Your task to perform on an android device: Go to accessibility settings Image 0: 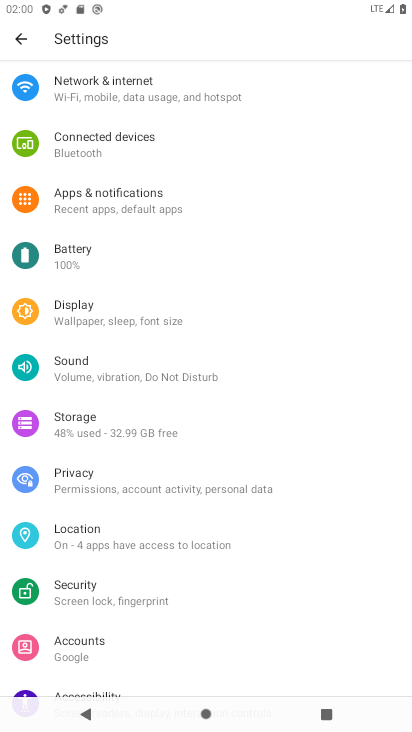
Step 0: drag from (196, 612) to (273, 163)
Your task to perform on an android device: Go to accessibility settings Image 1: 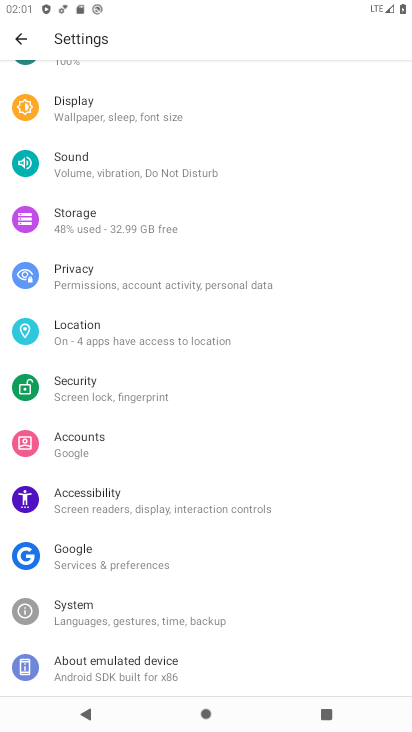
Step 1: click (117, 491)
Your task to perform on an android device: Go to accessibility settings Image 2: 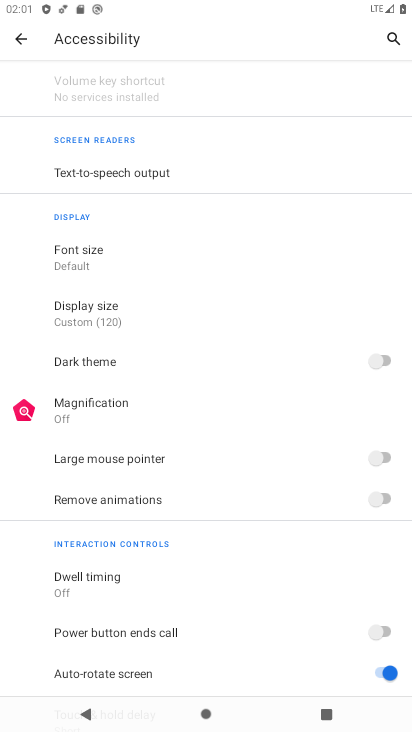
Step 2: task complete